Your task to perform on an android device: change the upload size in google photos Image 0: 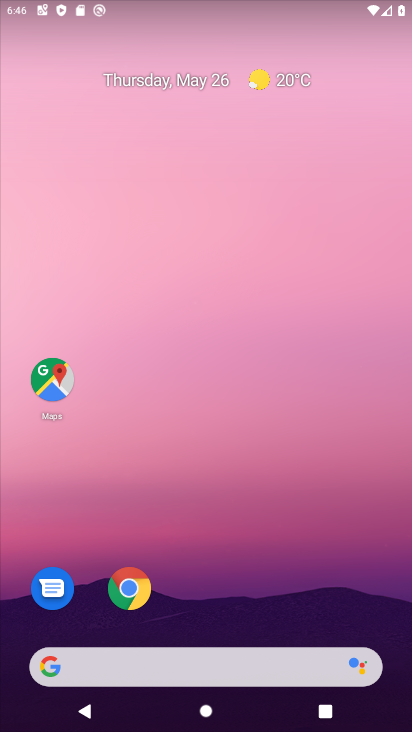
Step 0: drag from (383, 616) to (214, 45)
Your task to perform on an android device: change the upload size in google photos Image 1: 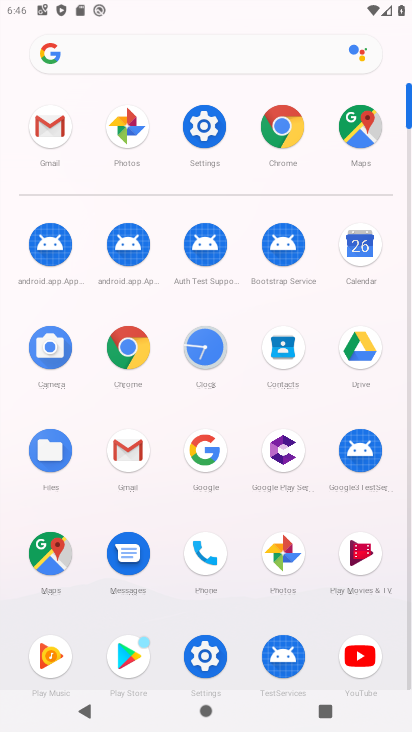
Step 1: click (283, 568)
Your task to perform on an android device: change the upload size in google photos Image 2: 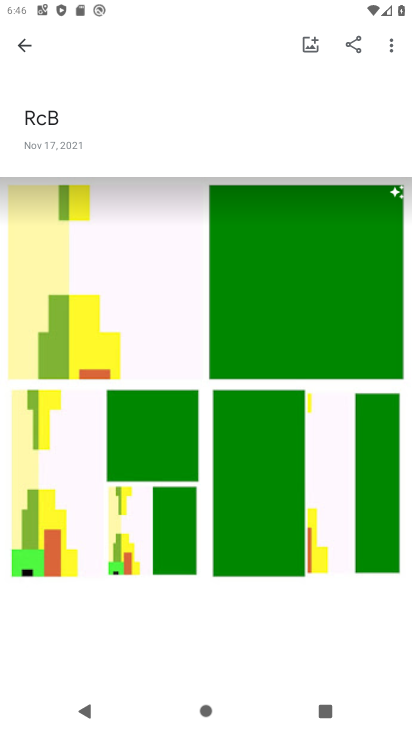
Step 2: press back button
Your task to perform on an android device: change the upload size in google photos Image 3: 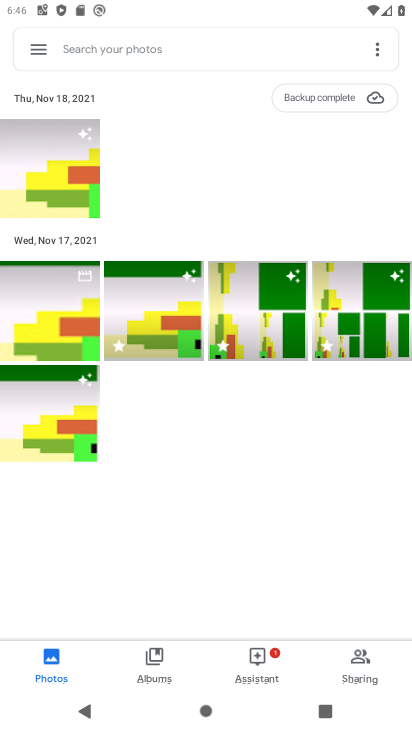
Step 3: click (374, 49)
Your task to perform on an android device: change the upload size in google photos Image 4: 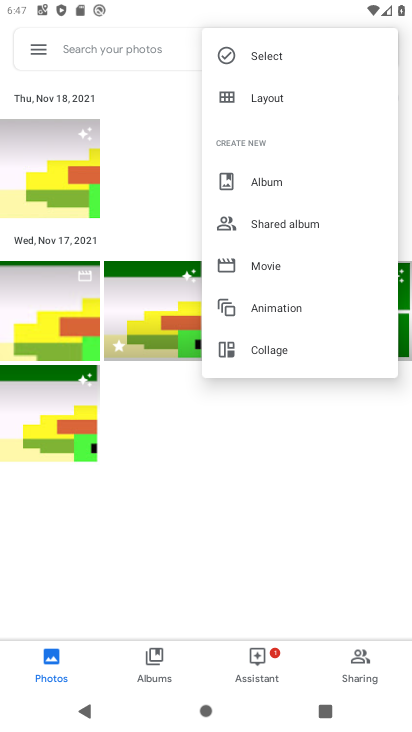
Step 4: click (52, 46)
Your task to perform on an android device: change the upload size in google photos Image 5: 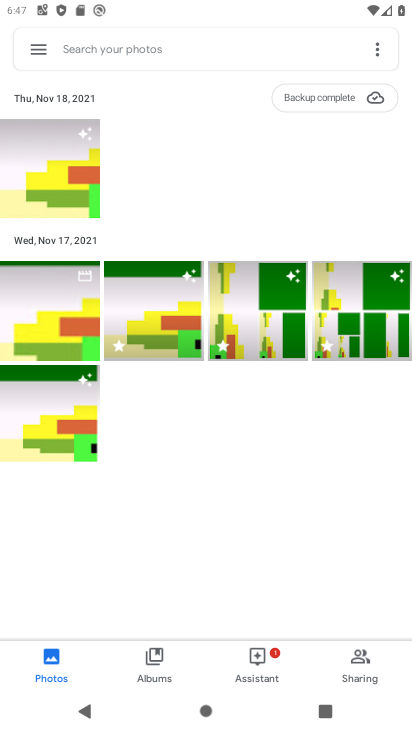
Step 5: click (35, 47)
Your task to perform on an android device: change the upload size in google photos Image 6: 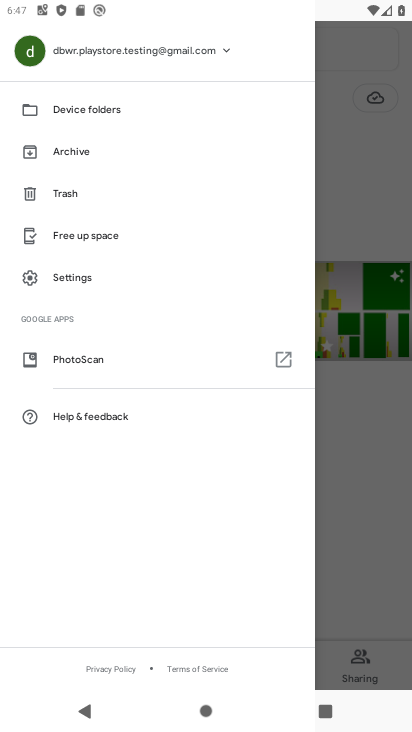
Step 6: click (55, 271)
Your task to perform on an android device: change the upload size in google photos Image 7: 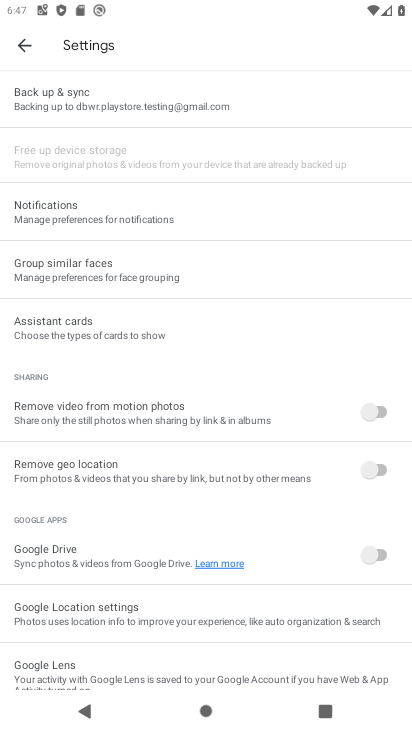
Step 7: click (153, 97)
Your task to perform on an android device: change the upload size in google photos Image 8: 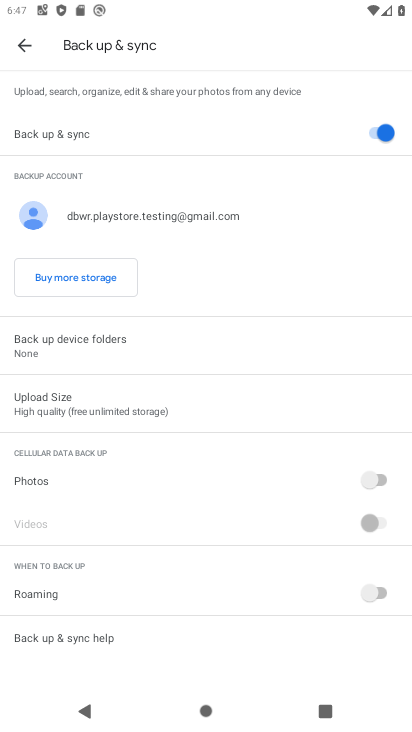
Step 8: click (99, 408)
Your task to perform on an android device: change the upload size in google photos Image 9: 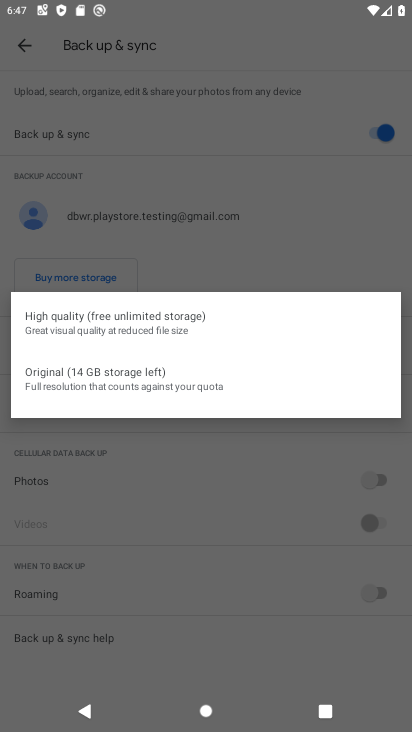
Step 9: click (115, 387)
Your task to perform on an android device: change the upload size in google photos Image 10: 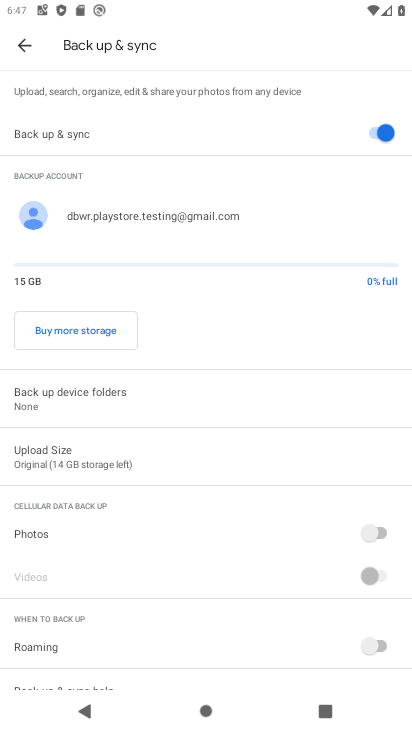
Step 10: task complete